Your task to perform on an android device: Go to notification settings Image 0: 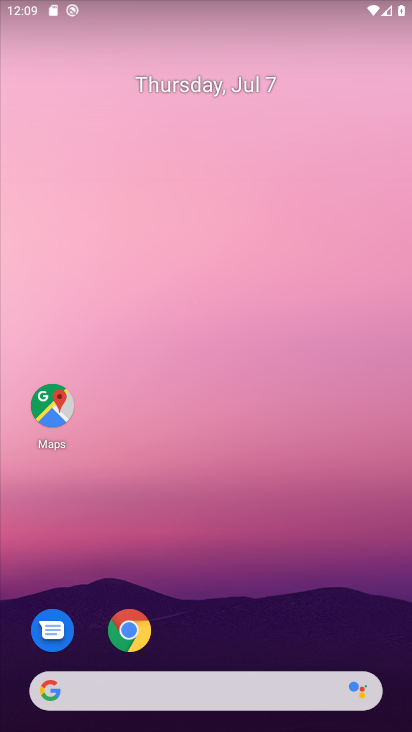
Step 0: drag from (250, 583) to (294, 192)
Your task to perform on an android device: Go to notification settings Image 1: 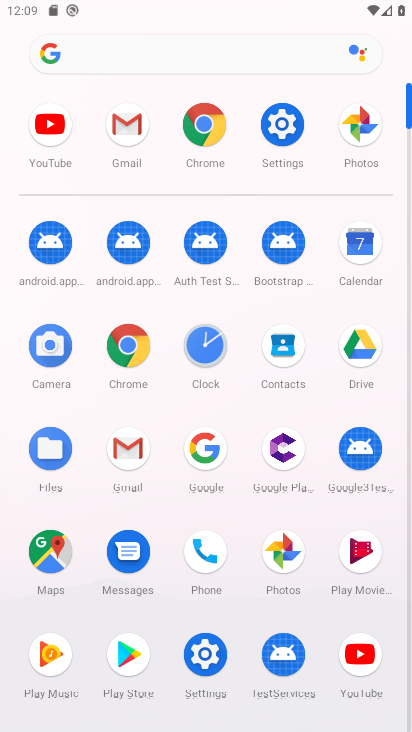
Step 1: click (200, 645)
Your task to perform on an android device: Go to notification settings Image 2: 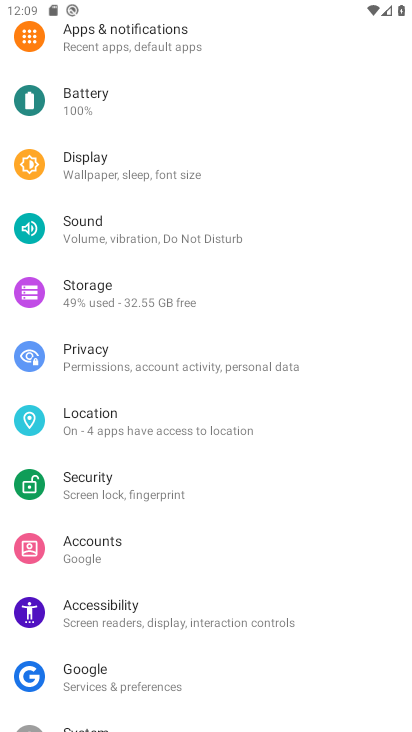
Step 2: drag from (167, 104) to (187, 268)
Your task to perform on an android device: Go to notification settings Image 3: 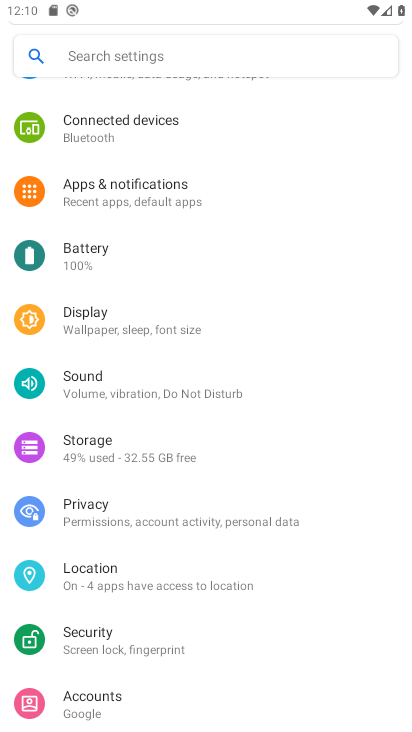
Step 3: click (168, 186)
Your task to perform on an android device: Go to notification settings Image 4: 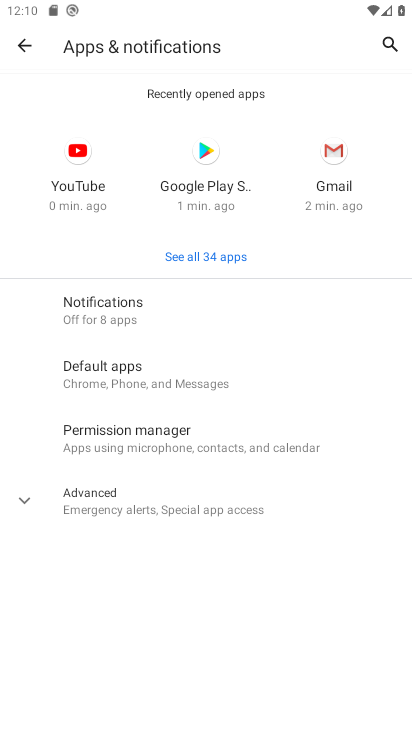
Step 4: click (158, 312)
Your task to perform on an android device: Go to notification settings Image 5: 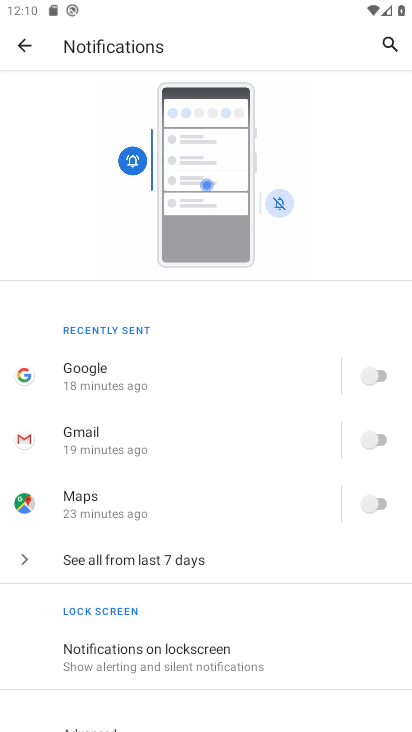
Step 5: task complete